Your task to perform on an android device: Is it going to rain today? Image 0: 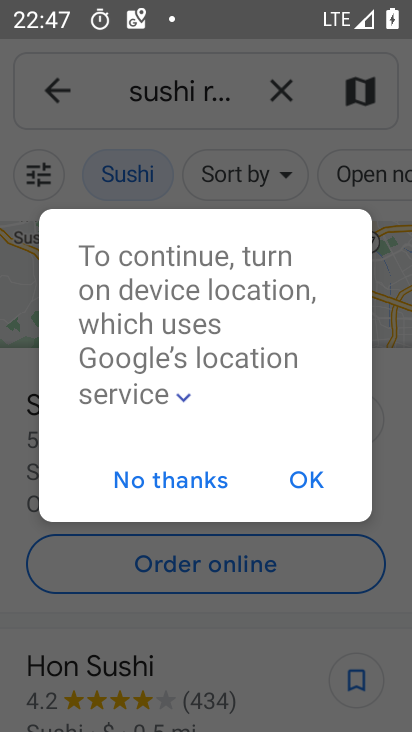
Step 0: press home button
Your task to perform on an android device: Is it going to rain today? Image 1: 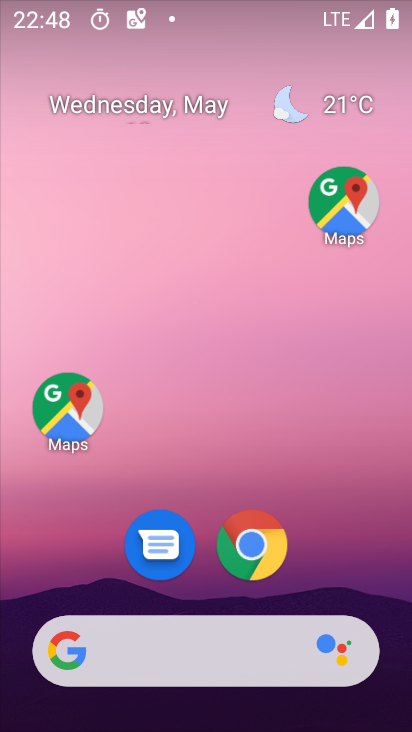
Step 1: click (133, 653)
Your task to perform on an android device: Is it going to rain today? Image 2: 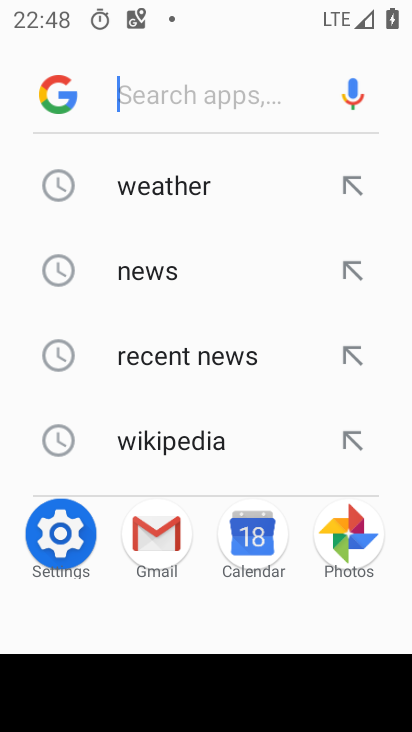
Step 2: type "is it going to rain today"
Your task to perform on an android device: Is it going to rain today? Image 3: 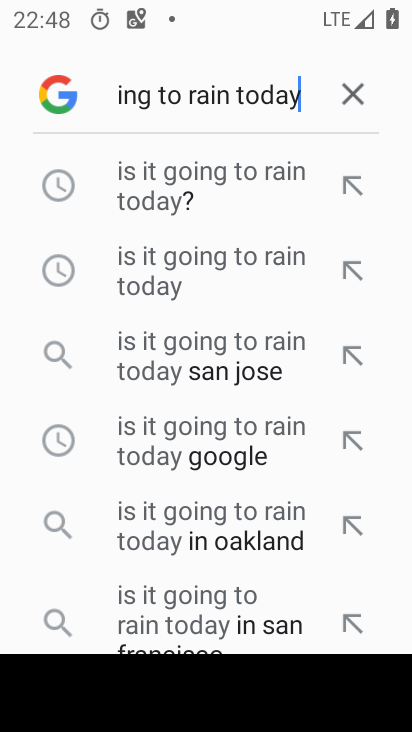
Step 3: click (258, 189)
Your task to perform on an android device: Is it going to rain today? Image 4: 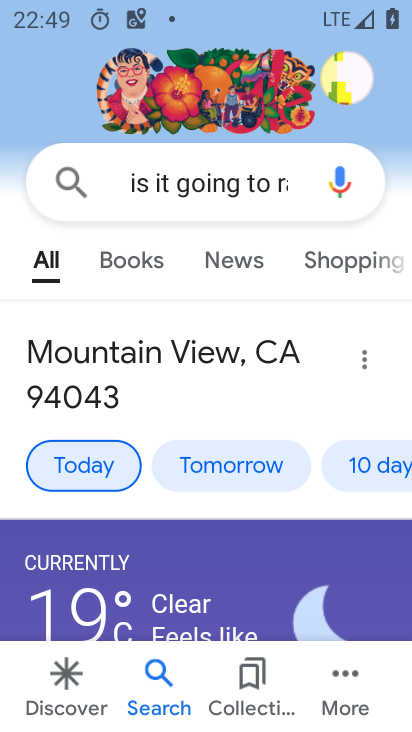
Step 4: task complete